Your task to perform on an android device: Open Android settings Image 0: 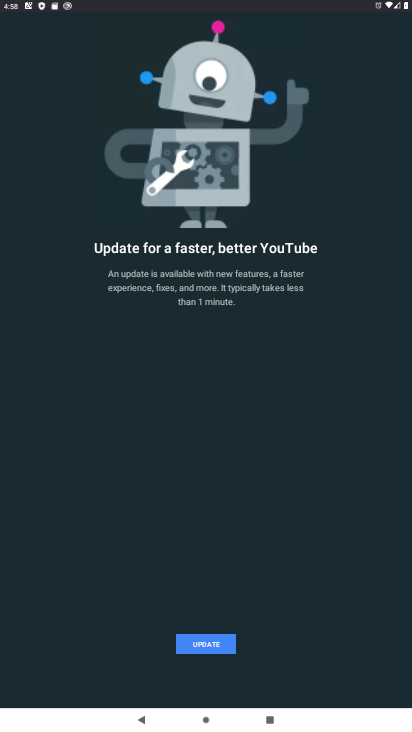
Step 0: press home button
Your task to perform on an android device: Open Android settings Image 1: 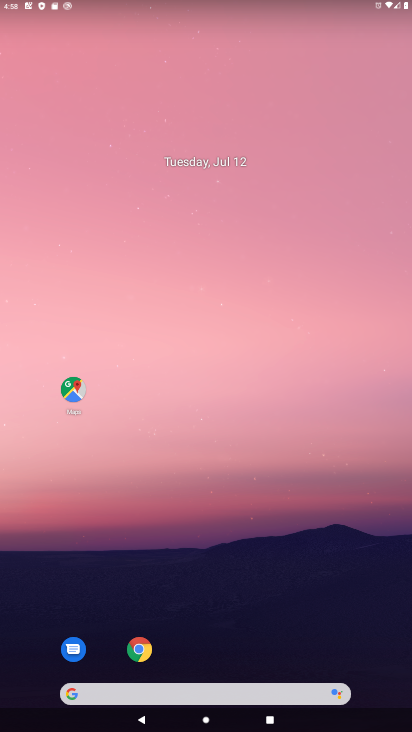
Step 1: drag from (191, 691) to (285, 143)
Your task to perform on an android device: Open Android settings Image 2: 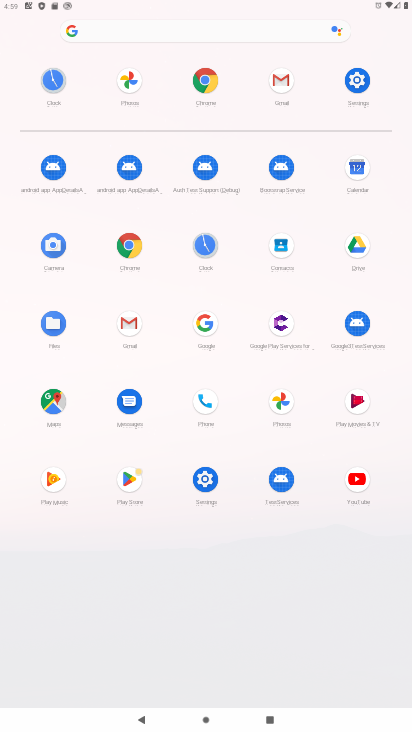
Step 2: click (205, 478)
Your task to perform on an android device: Open Android settings Image 3: 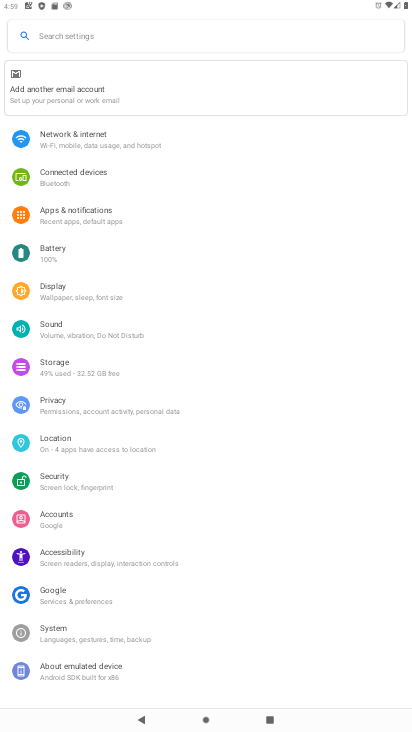
Step 3: task complete